Your task to perform on an android device: toggle show notifications on the lock screen Image 0: 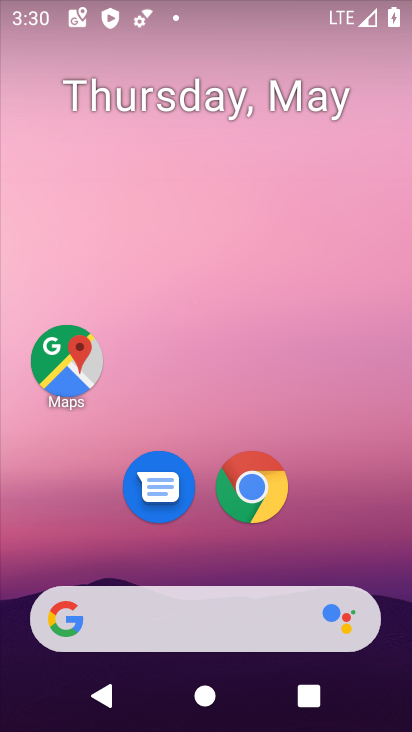
Step 0: drag from (218, 654) to (289, 152)
Your task to perform on an android device: toggle show notifications on the lock screen Image 1: 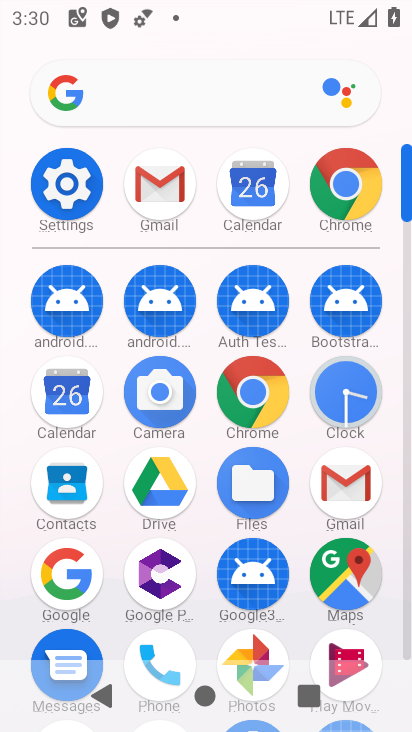
Step 1: click (70, 192)
Your task to perform on an android device: toggle show notifications on the lock screen Image 2: 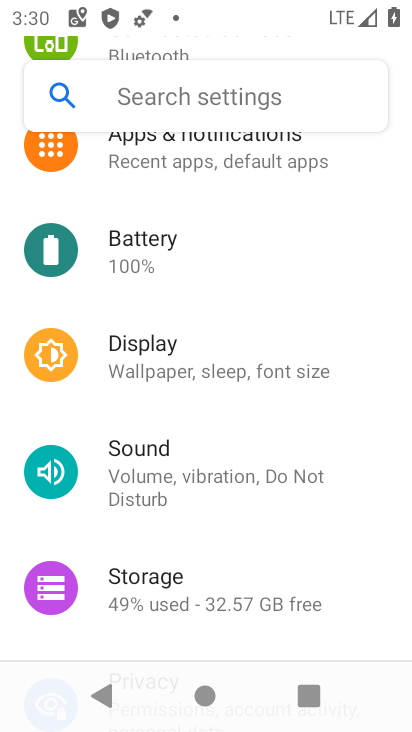
Step 2: drag from (218, 281) to (172, 624)
Your task to perform on an android device: toggle show notifications on the lock screen Image 3: 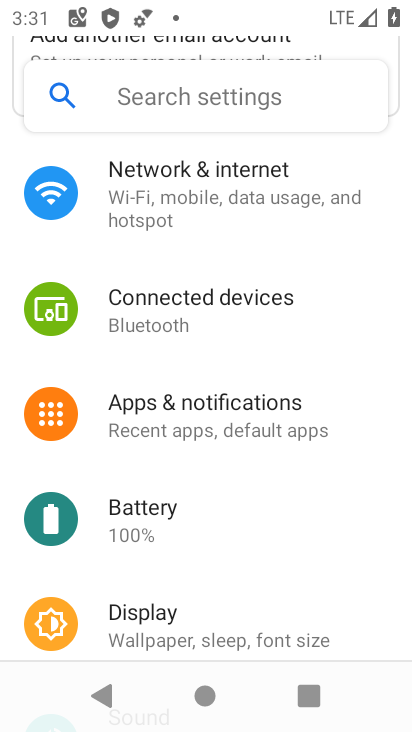
Step 3: click (217, 415)
Your task to perform on an android device: toggle show notifications on the lock screen Image 4: 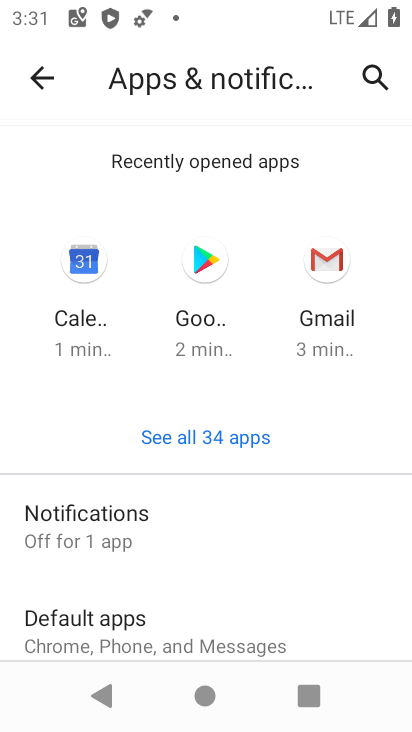
Step 4: drag from (241, 575) to (278, 304)
Your task to perform on an android device: toggle show notifications on the lock screen Image 5: 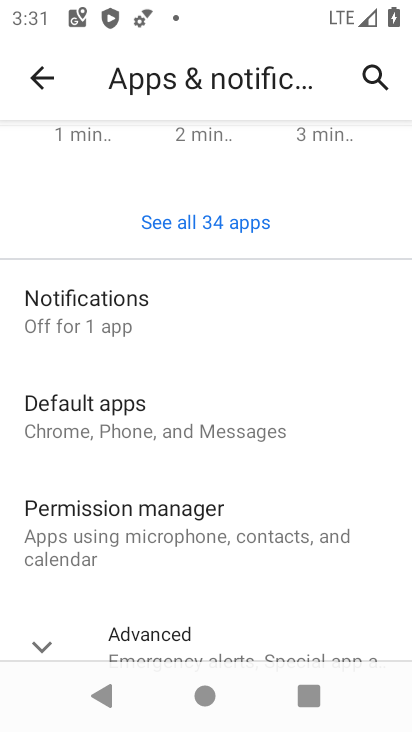
Step 5: click (214, 310)
Your task to perform on an android device: toggle show notifications on the lock screen Image 6: 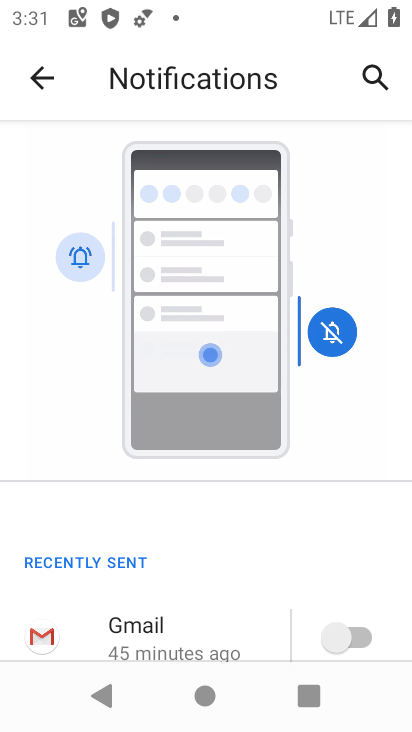
Step 6: drag from (176, 532) to (302, 244)
Your task to perform on an android device: toggle show notifications on the lock screen Image 7: 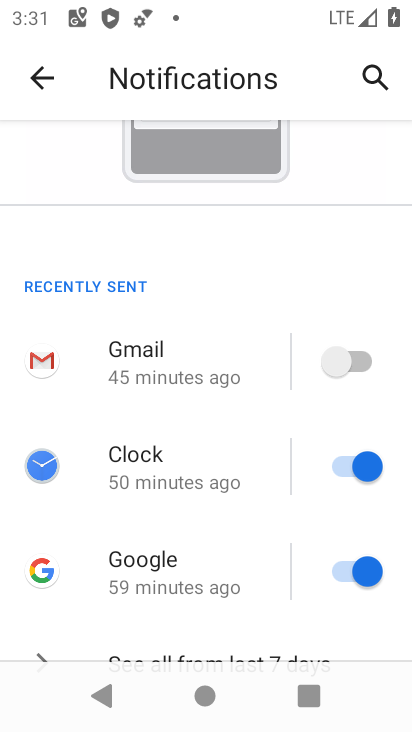
Step 7: drag from (219, 514) to (326, 250)
Your task to perform on an android device: toggle show notifications on the lock screen Image 8: 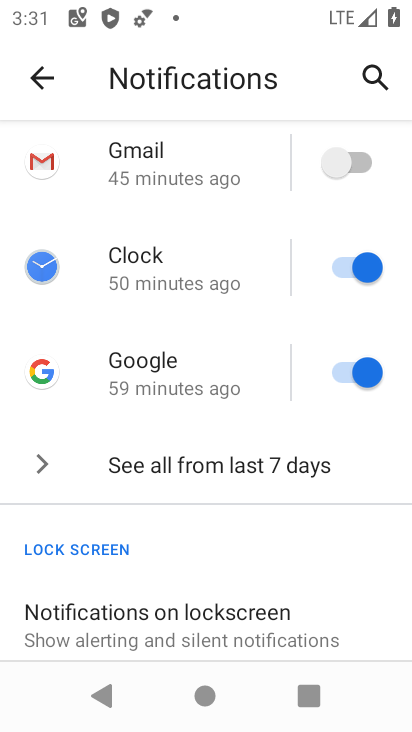
Step 8: click (269, 632)
Your task to perform on an android device: toggle show notifications on the lock screen Image 9: 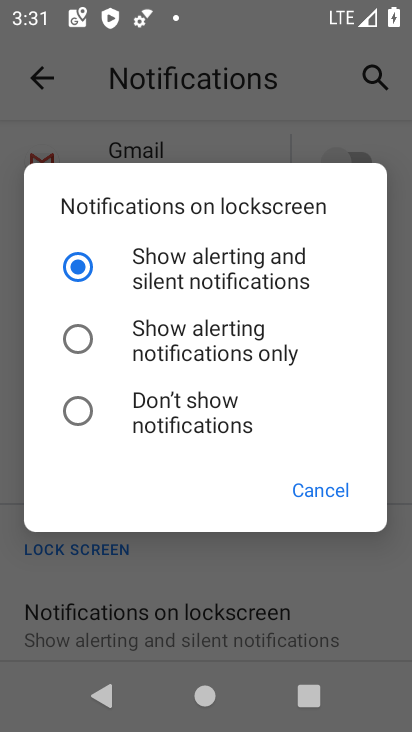
Step 9: task complete